Your task to perform on an android device: check out phone information Image 0: 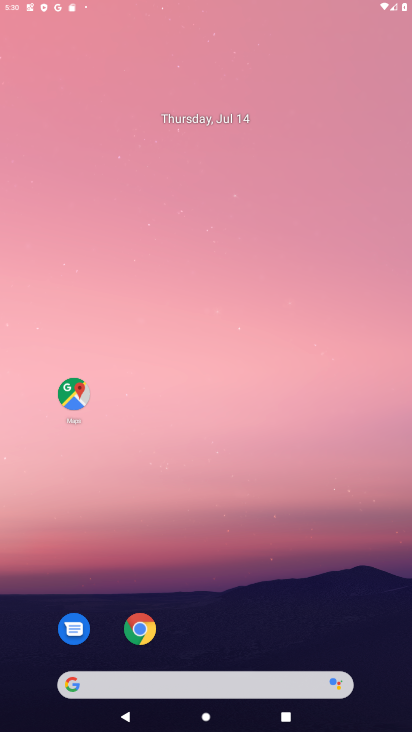
Step 0: click (278, 92)
Your task to perform on an android device: check out phone information Image 1: 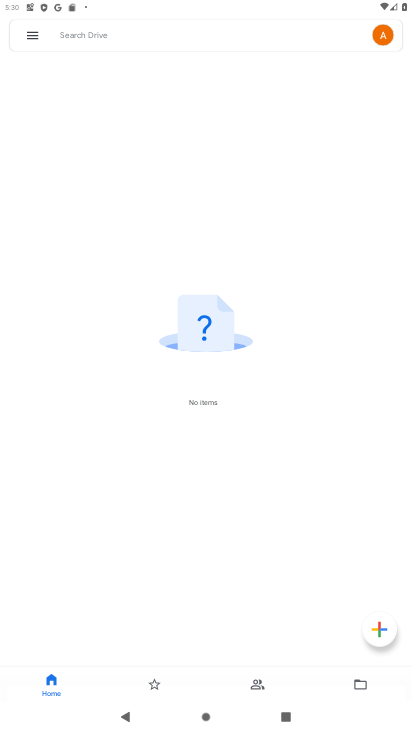
Step 1: press home button
Your task to perform on an android device: check out phone information Image 2: 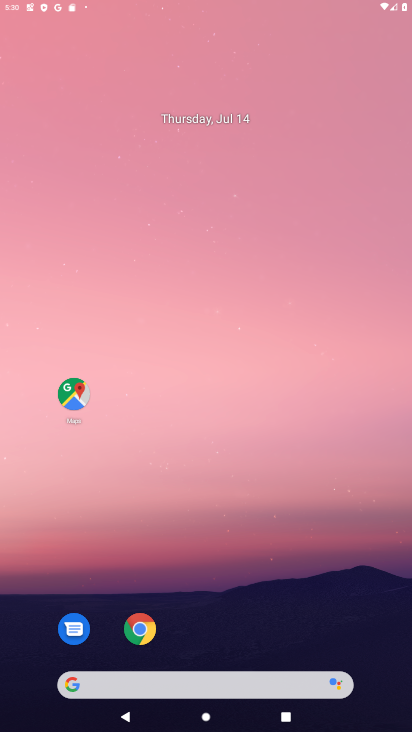
Step 2: drag from (311, 562) to (314, 4)
Your task to perform on an android device: check out phone information Image 3: 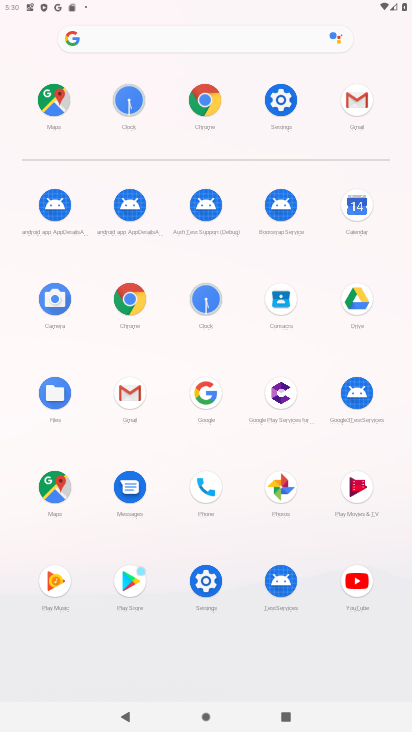
Step 3: click (273, 96)
Your task to perform on an android device: check out phone information Image 4: 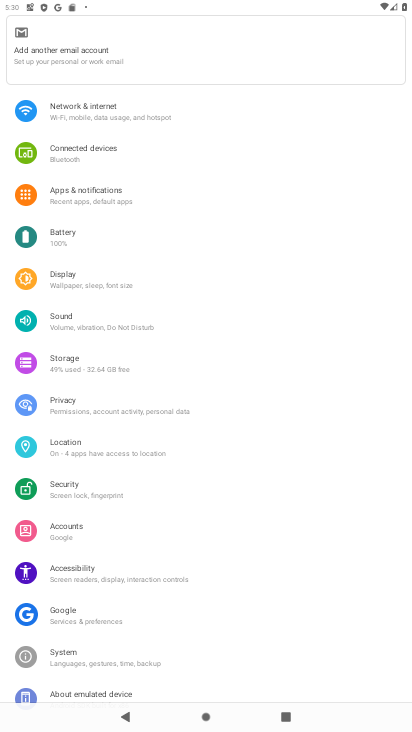
Step 4: drag from (224, 533) to (185, 227)
Your task to perform on an android device: check out phone information Image 5: 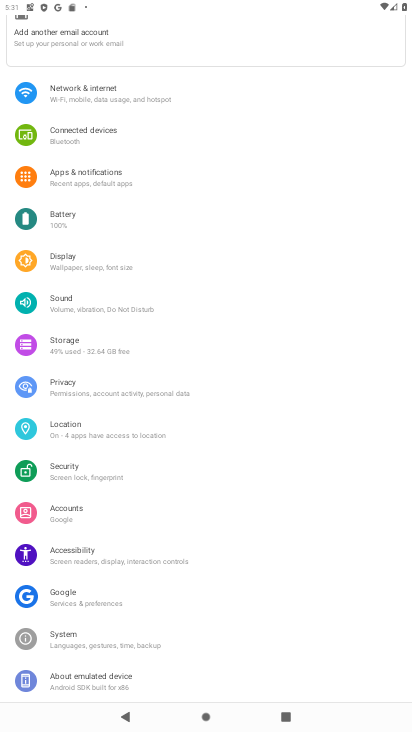
Step 5: click (91, 686)
Your task to perform on an android device: check out phone information Image 6: 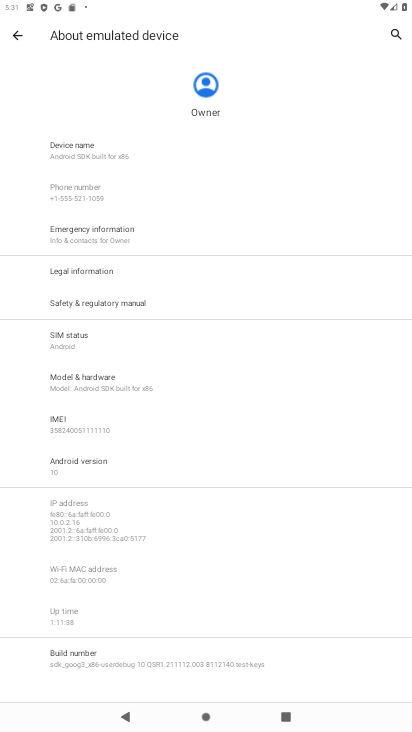
Step 6: task complete